Your task to perform on an android device: What's the weather today? Image 0: 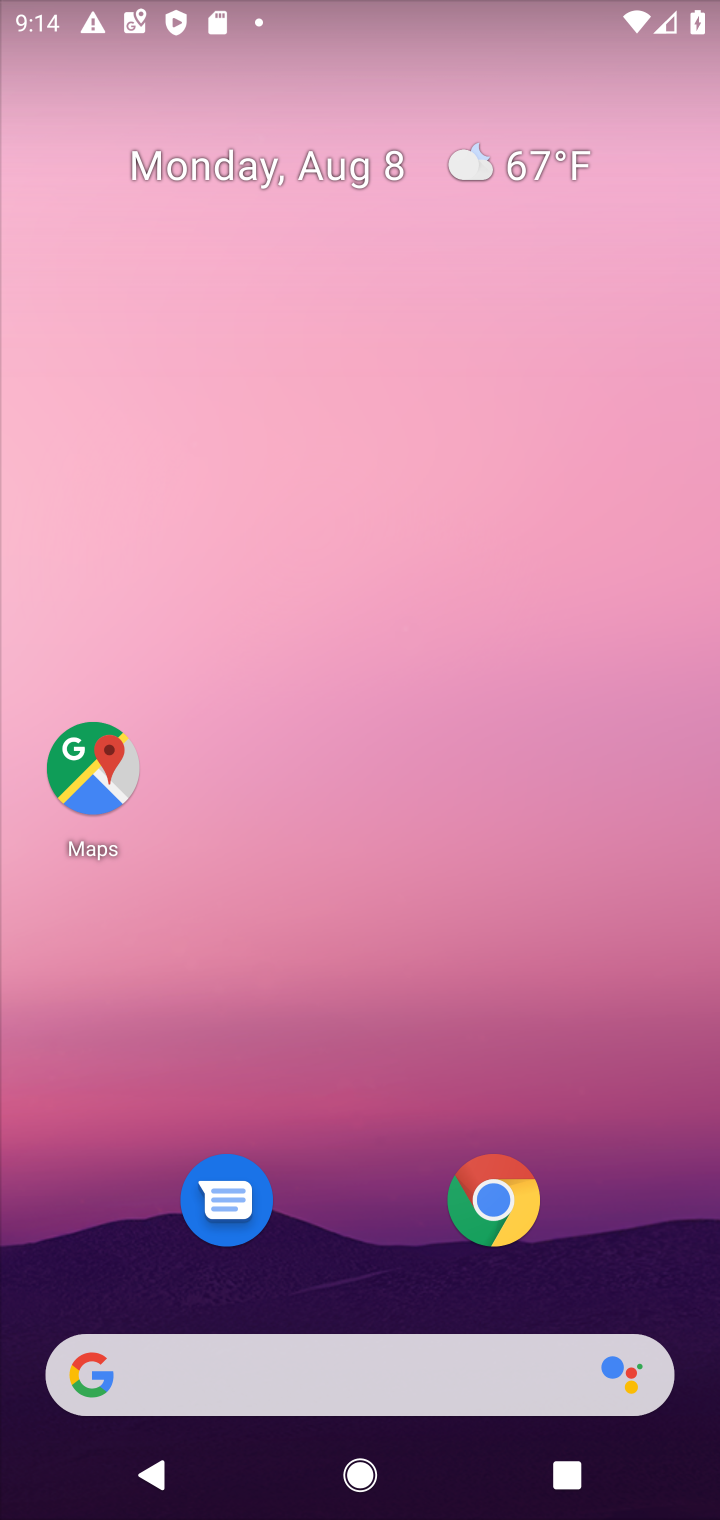
Step 0: click (241, 1390)
Your task to perform on an android device: What's the weather today? Image 1: 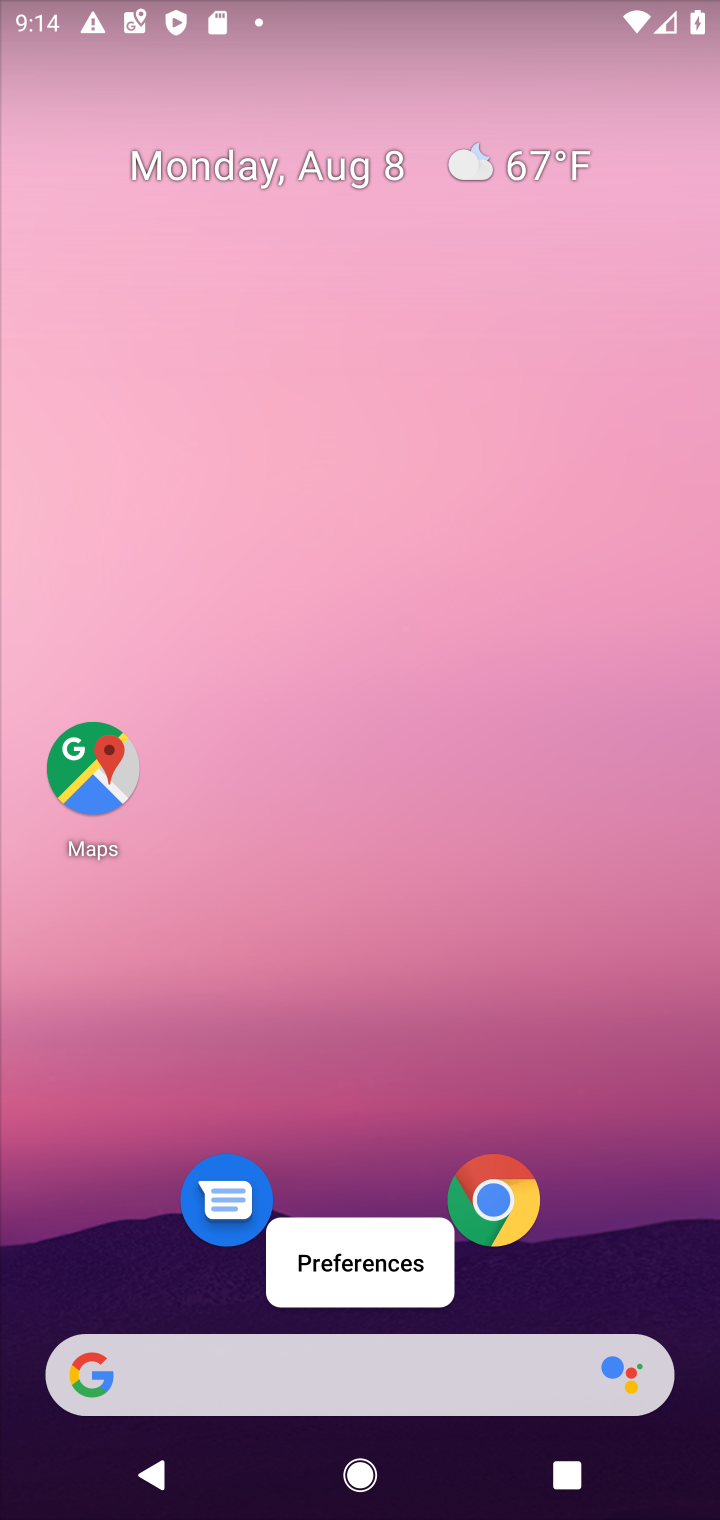
Step 1: click (254, 1366)
Your task to perform on an android device: What's the weather today? Image 2: 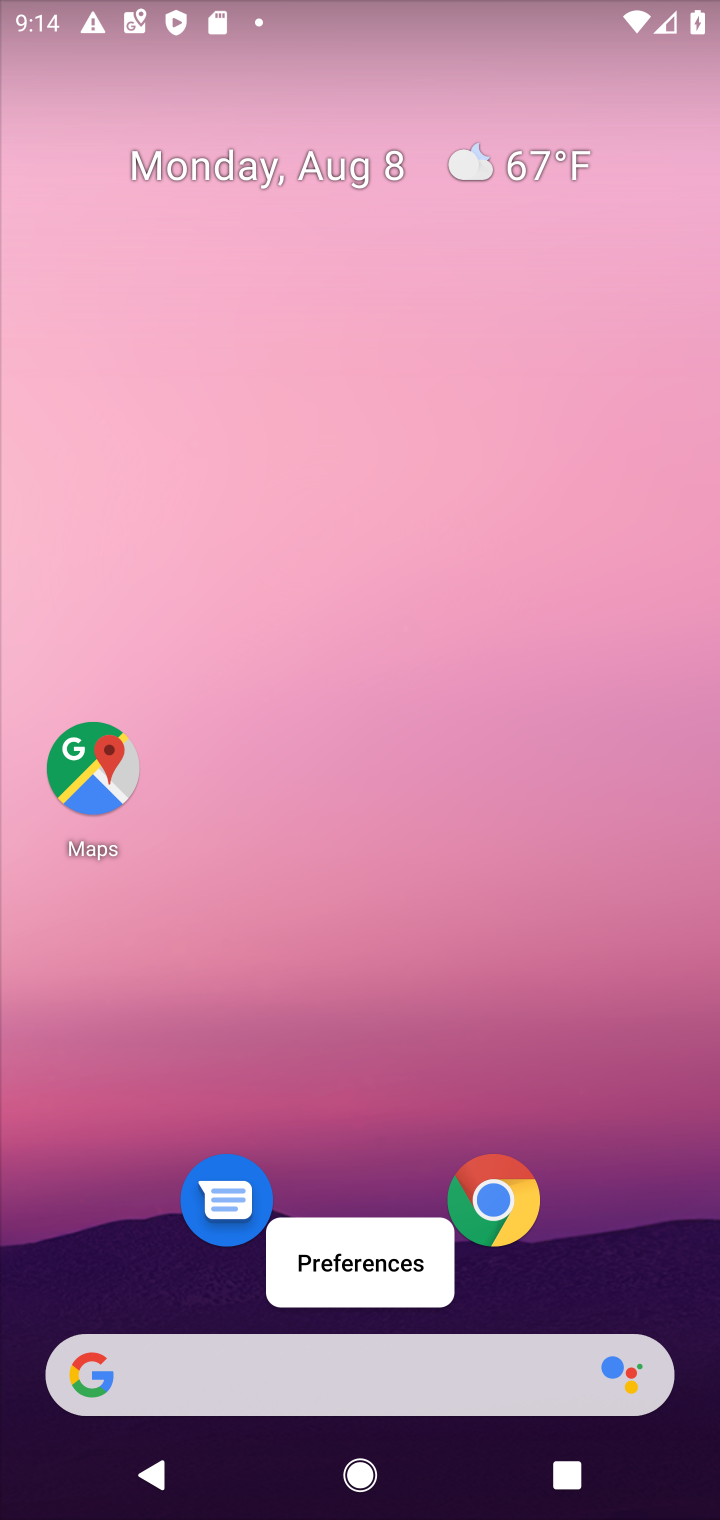
Step 2: click (254, 1378)
Your task to perform on an android device: What's the weather today? Image 3: 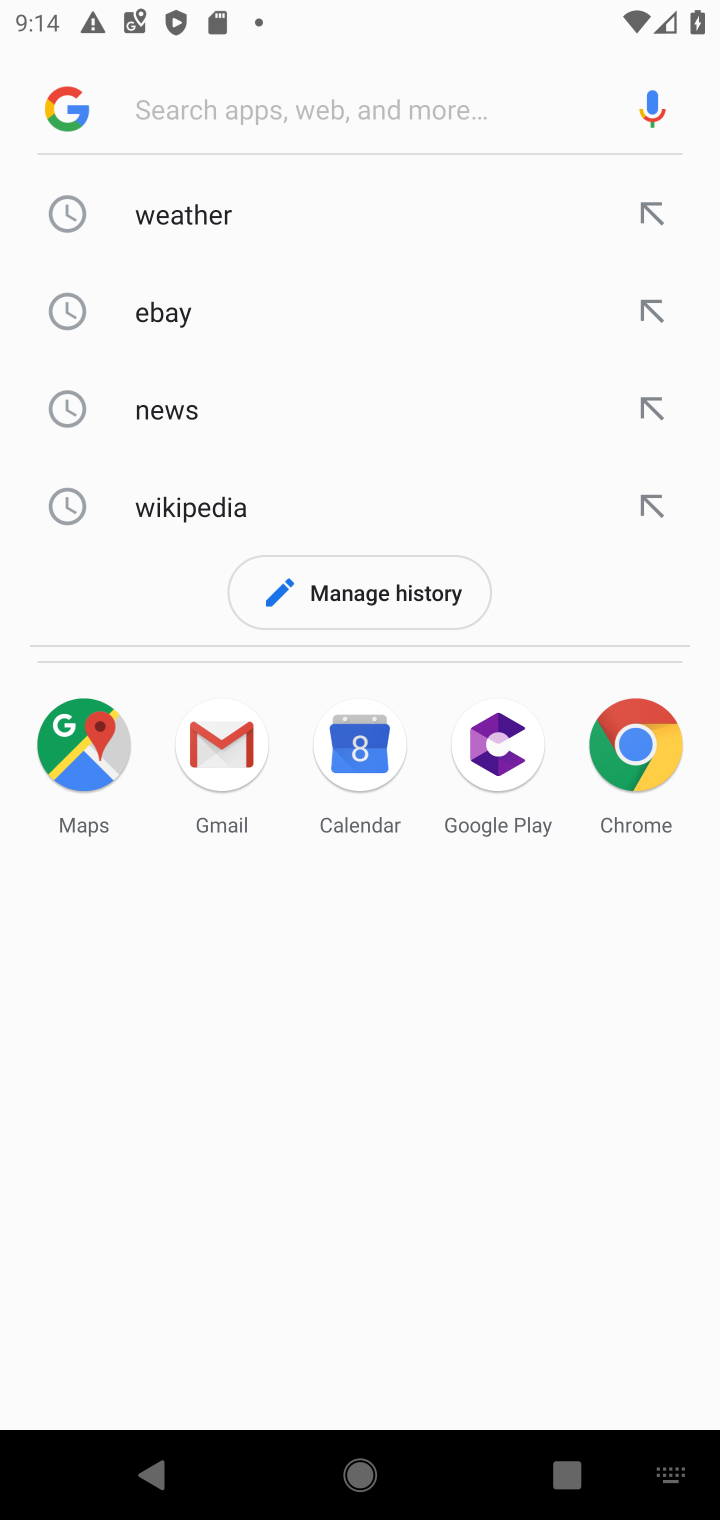
Step 3: click (211, 222)
Your task to perform on an android device: What's the weather today? Image 4: 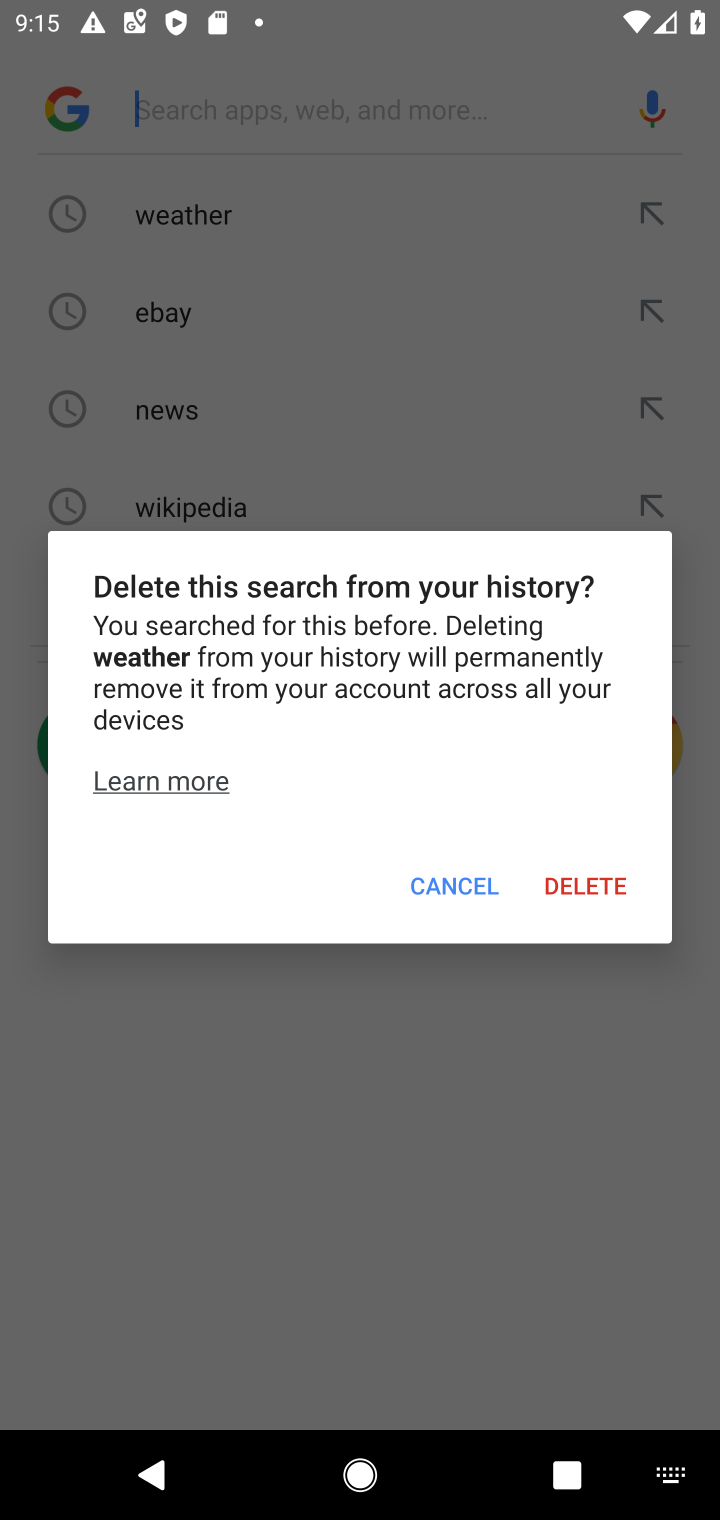
Step 4: click (463, 883)
Your task to perform on an android device: What's the weather today? Image 5: 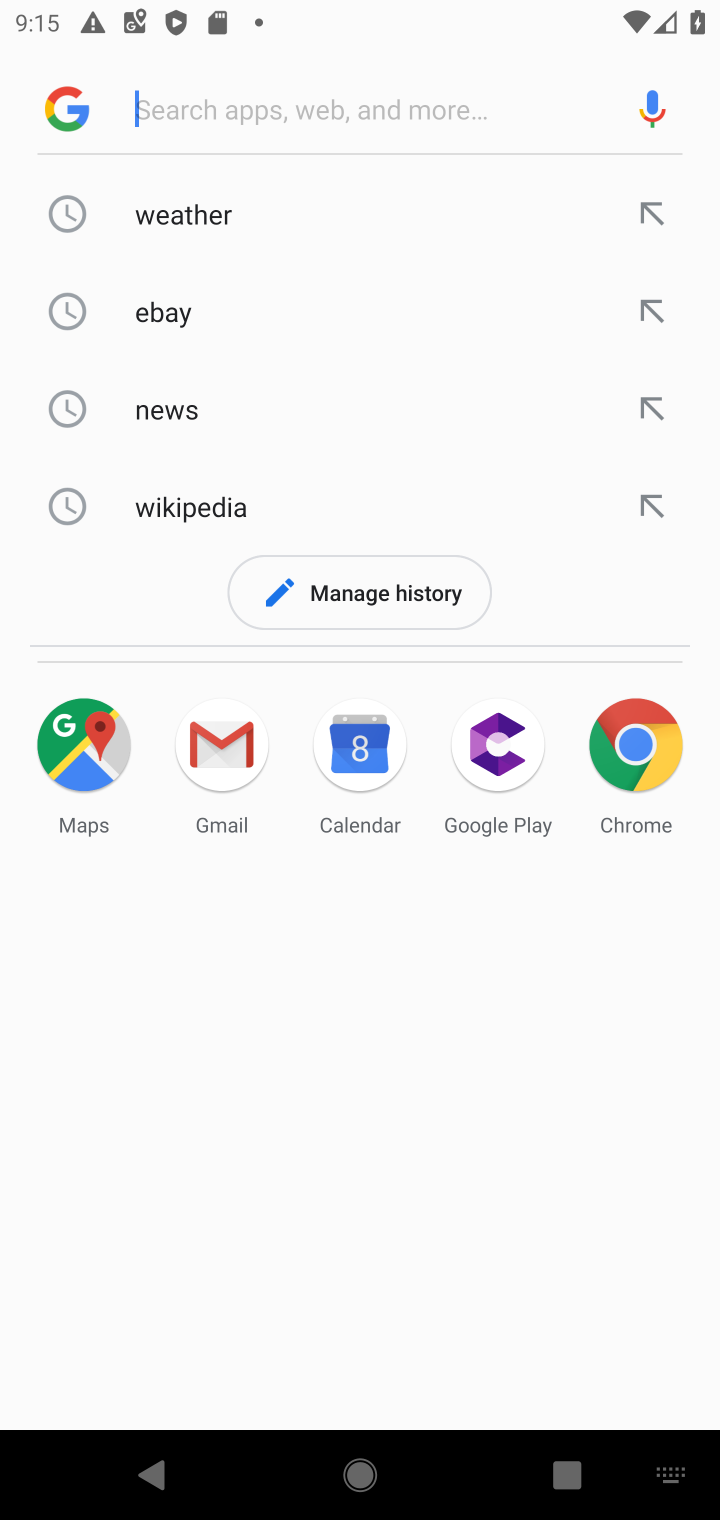
Step 5: click (164, 206)
Your task to perform on an android device: What's the weather today? Image 6: 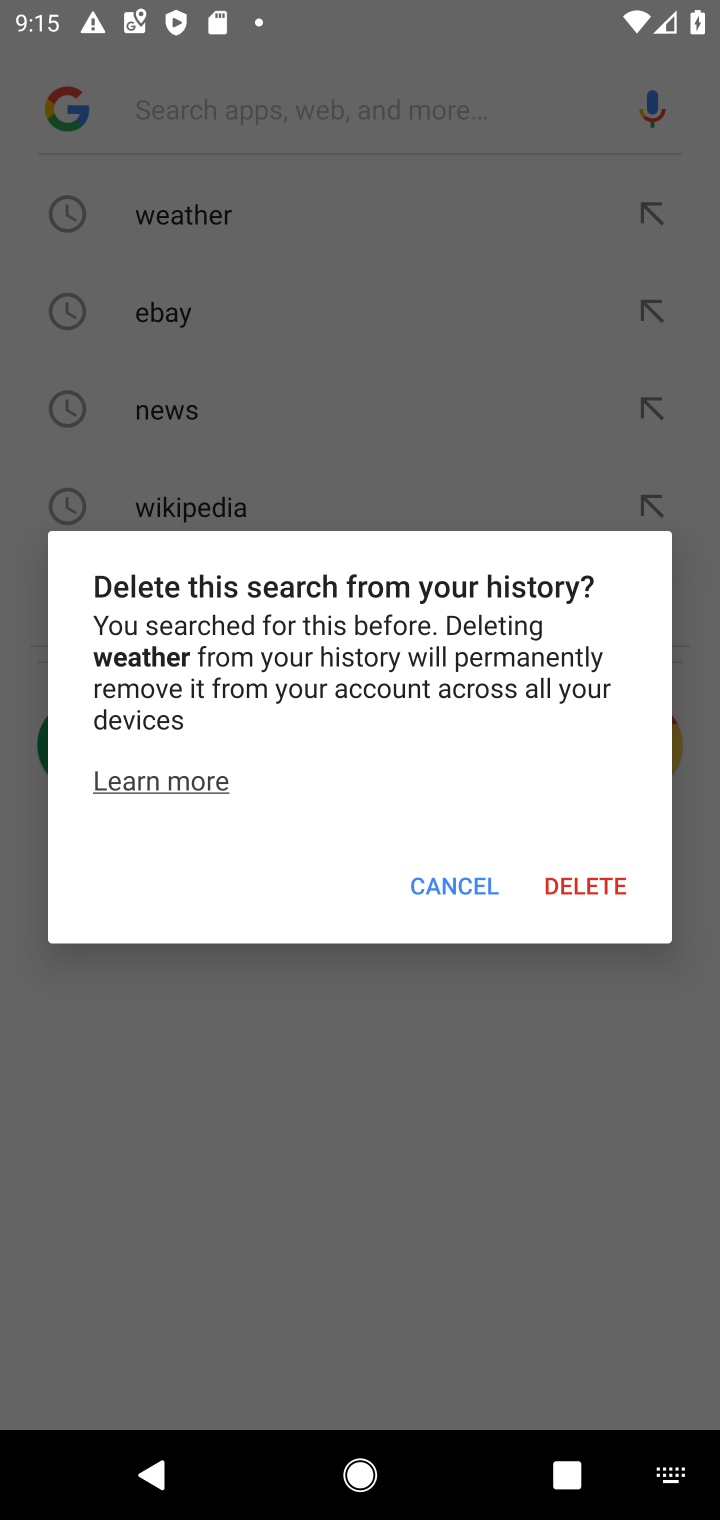
Step 6: click (418, 874)
Your task to perform on an android device: What's the weather today? Image 7: 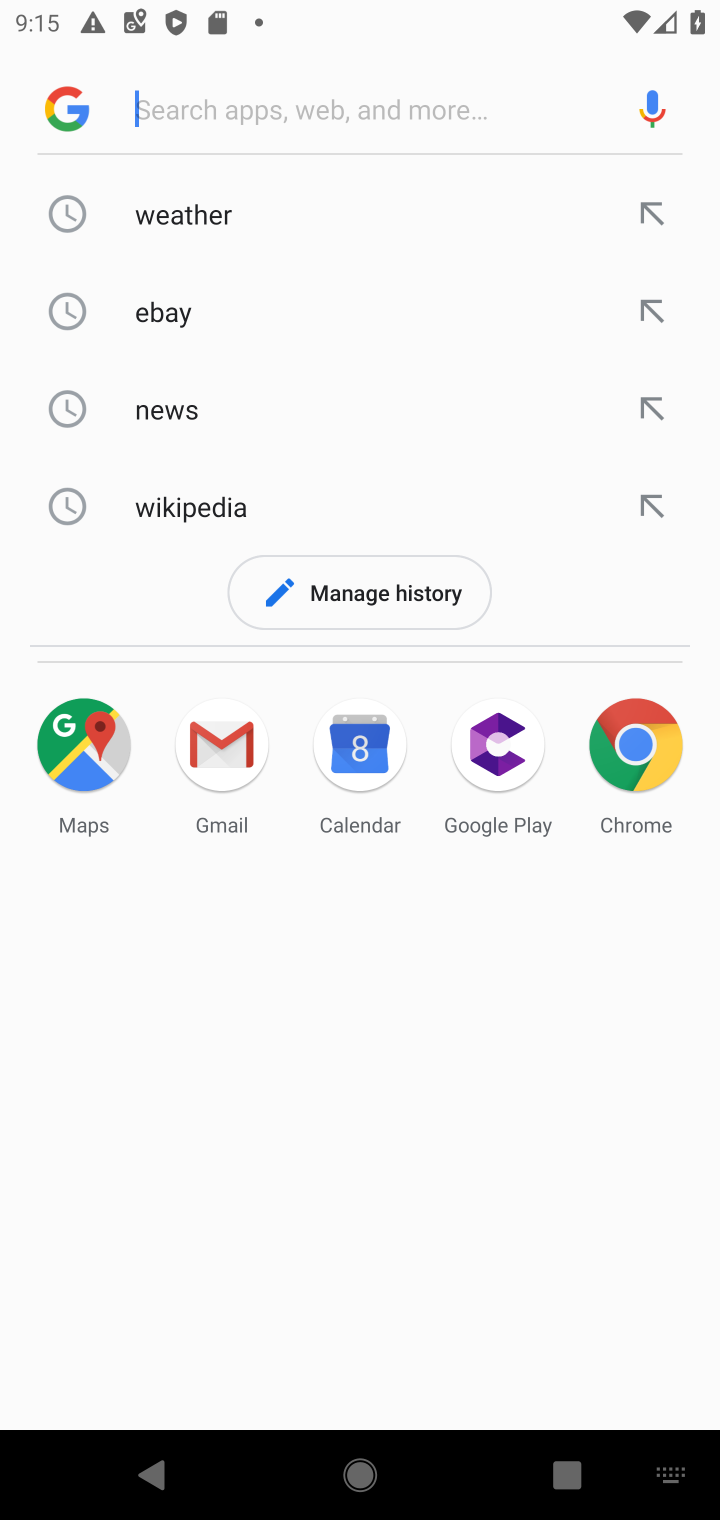
Step 7: type "weather "
Your task to perform on an android device: What's the weather today? Image 8: 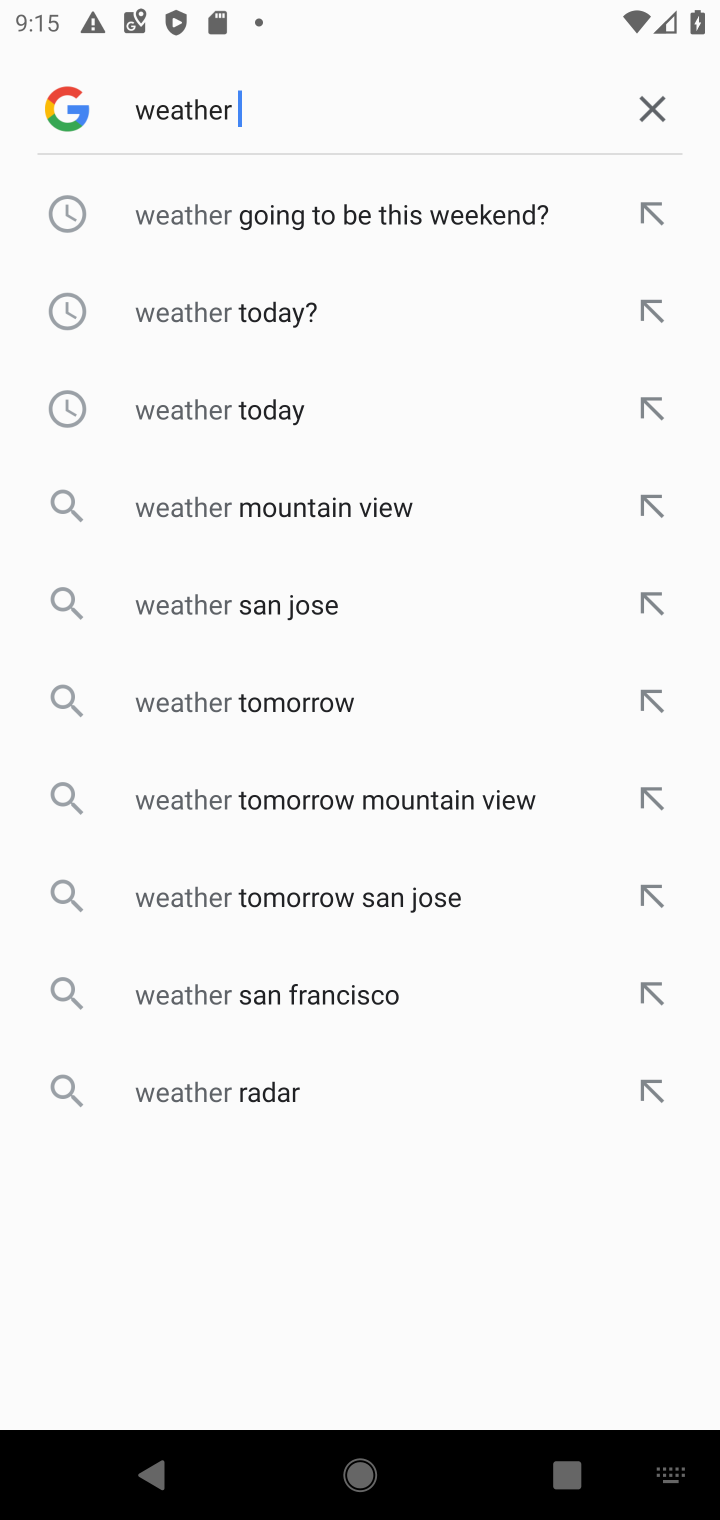
Step 8: click (202, 201)
Your task to perform on an android device: What's the weather today? Image 9: 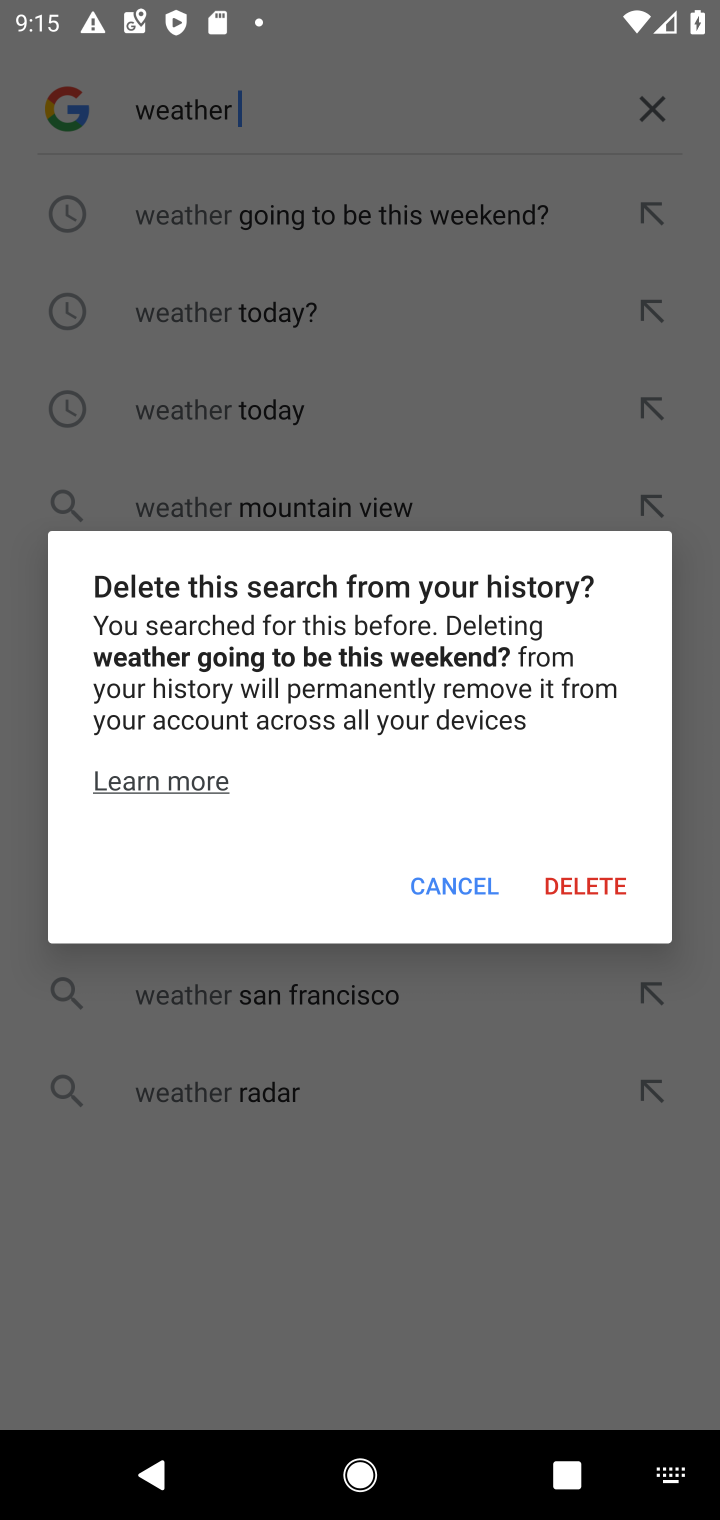
Step 9: click (462, 879)
Your task to perform on an android device: What's the weather today? Image 10: 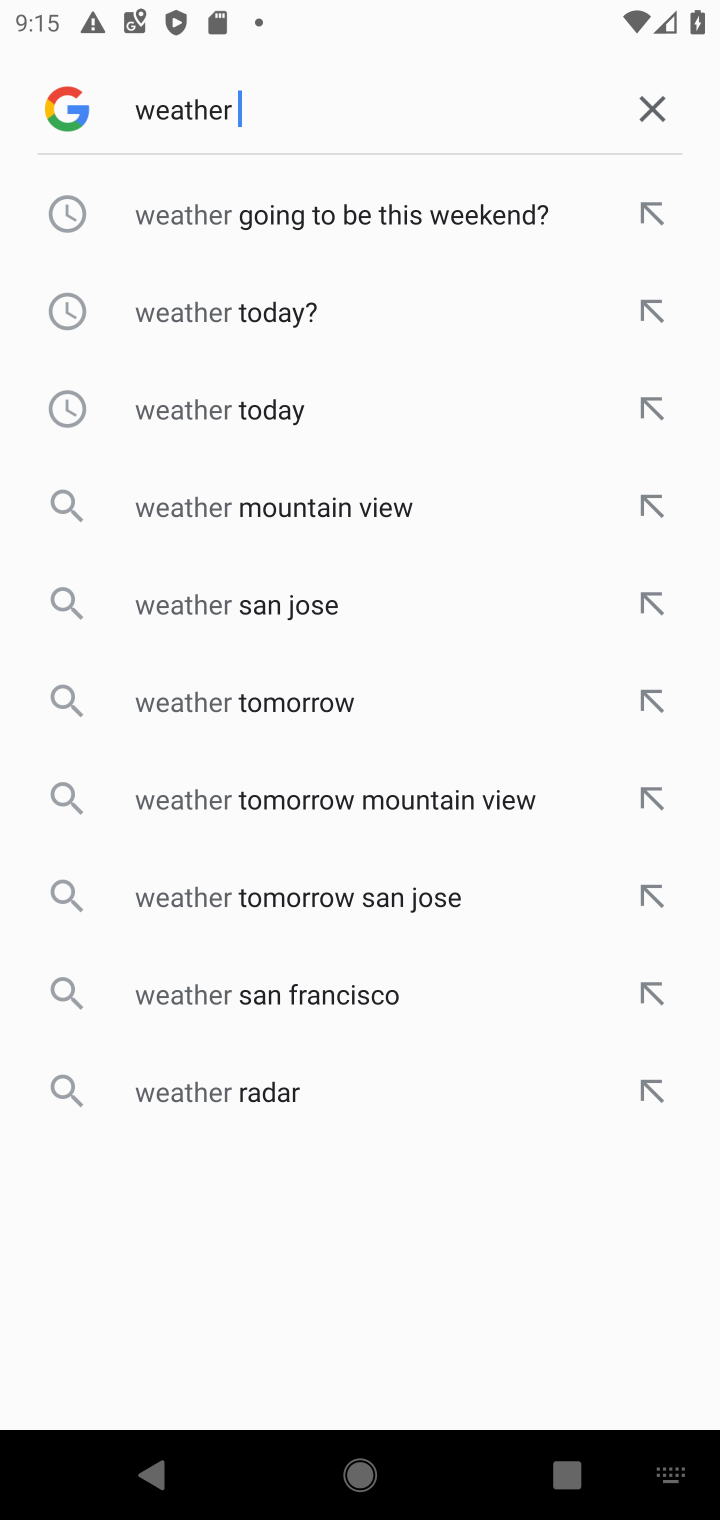
Step 10: click (653, 311)
Your task to perform on an android device: What's the weather today? Image 11: 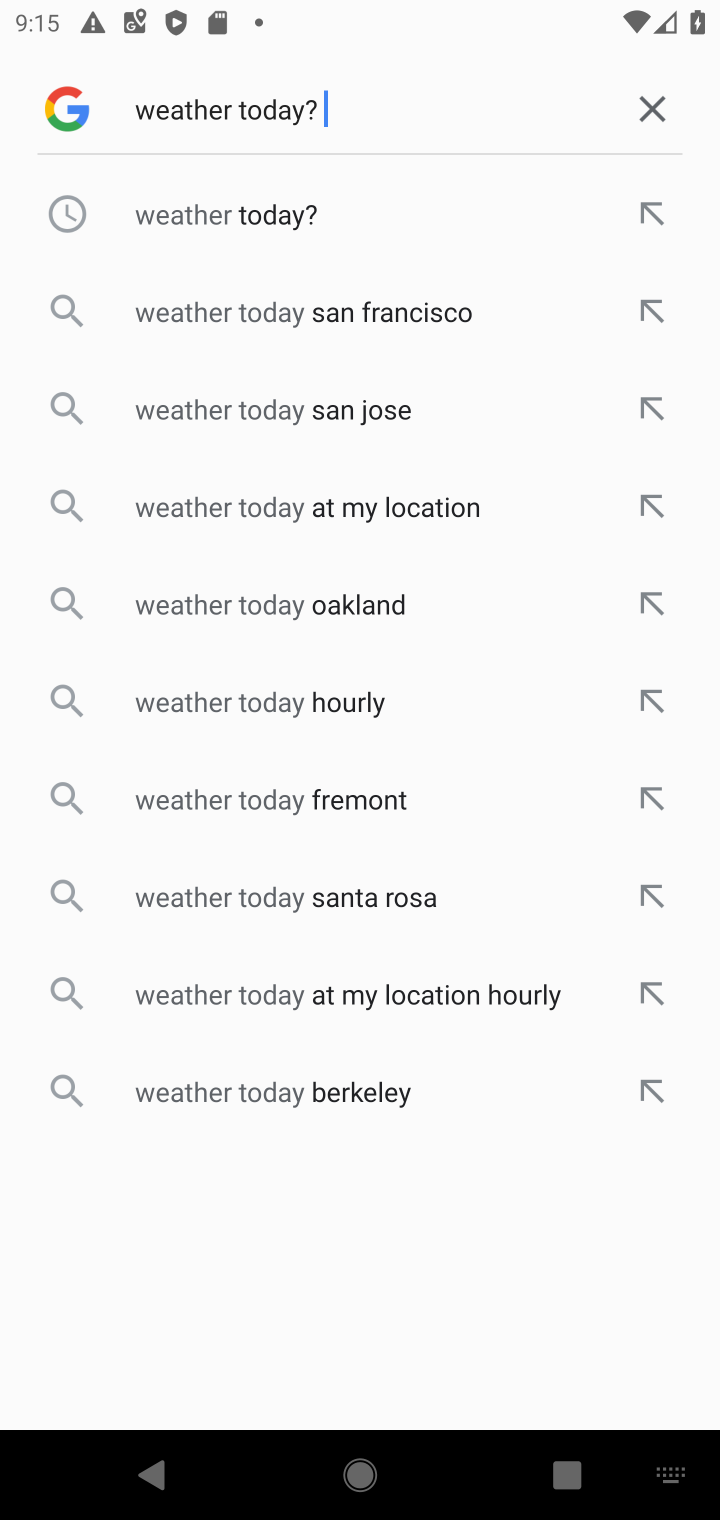
Step 11: click (650, 213)
Your task to perform on an android device: What's the weather today? Image 12: 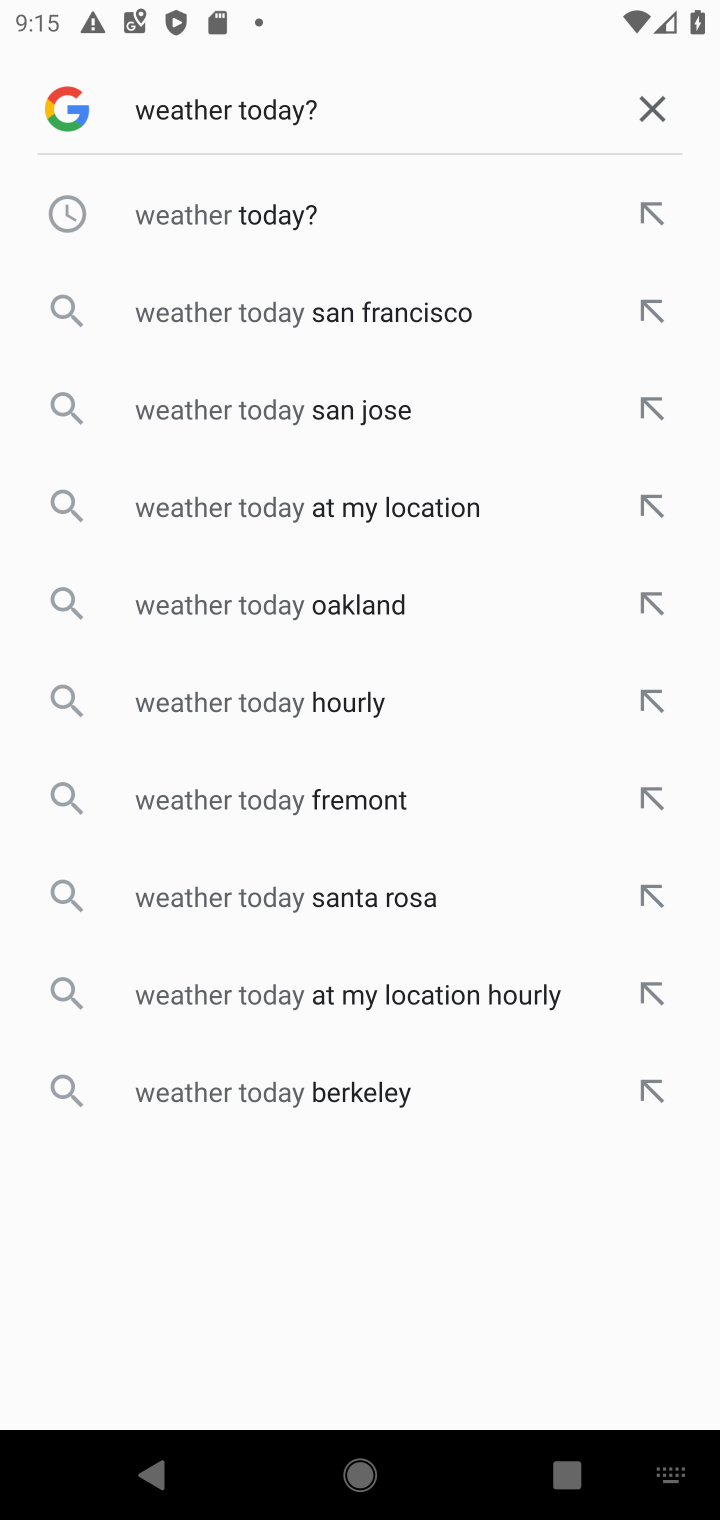
Step 12: click (282, 210)
Your task to perform on an android device: What's the weather today? Image 13: 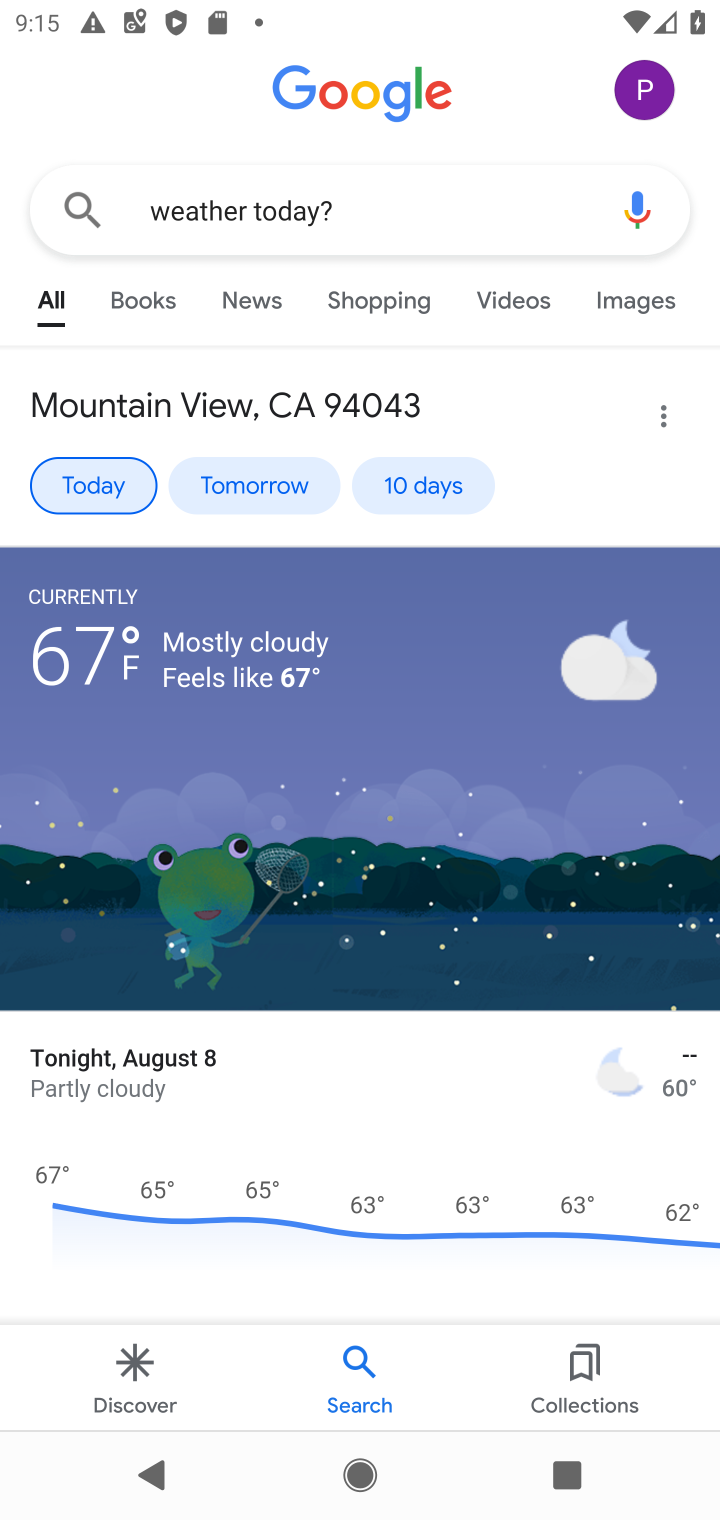
Step 13: task complete